Your task to perform on an android device: turn off wifi Image 0: 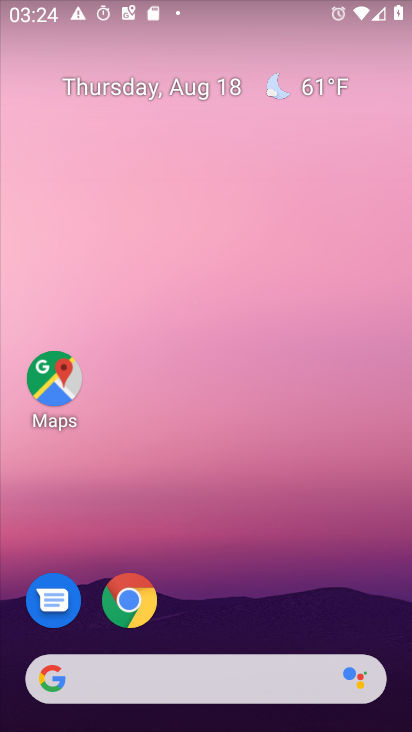
Step 0: press home button
Your task to perform on an android device: turn off wifi Image 1: 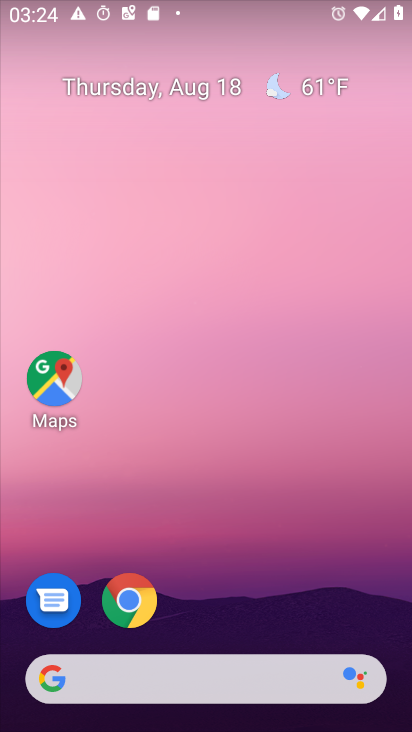
Step 1: click (51, 676)
Your task to perform on an android device: turn off wifi Image 2: 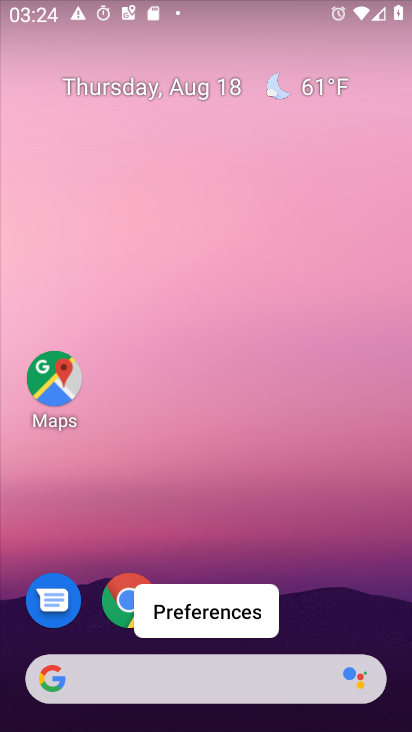
Step 2: click (51, 676)
Your task to perform on an android device: turn off wifi Image 3: 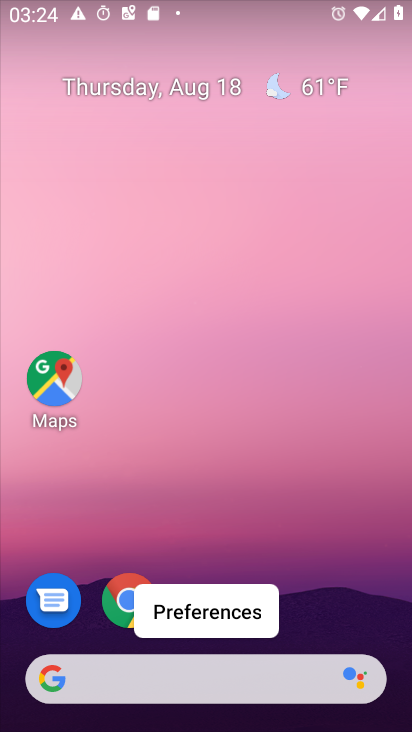
Step 3: drag from (218, 49) to (113, 669)
Your task to perform on an android device: turn off wifi Image 4: 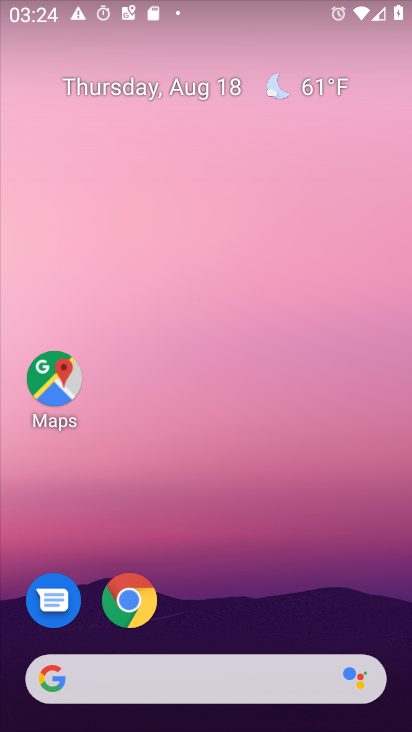
Step 4: drag from (238, 17) to (179, 344)
Your task to perform on an android device: turn off wifi Image 5: 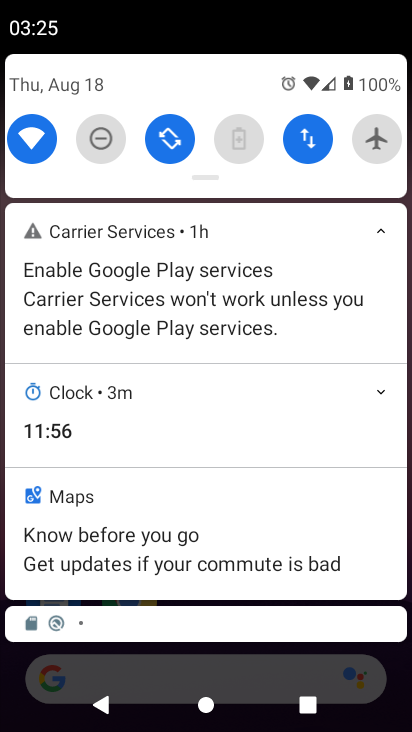
Step 5: click (37, 141)
Your task to perform on an android device: turn off wifi Image 6: 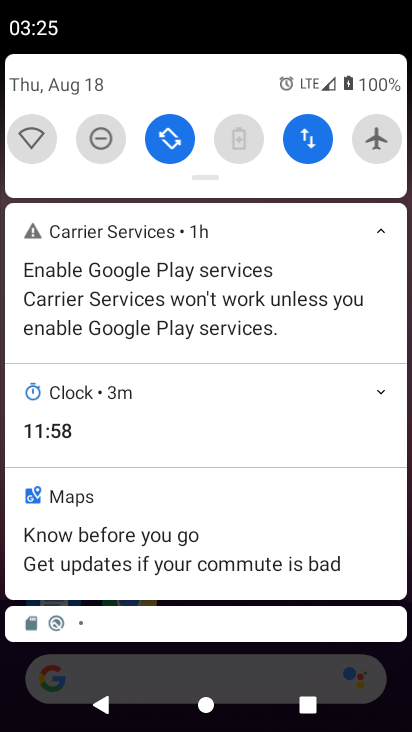
Step 6: task complete